Your task to perform on an android device: Show me productivity apps on the Play Store Image 0: 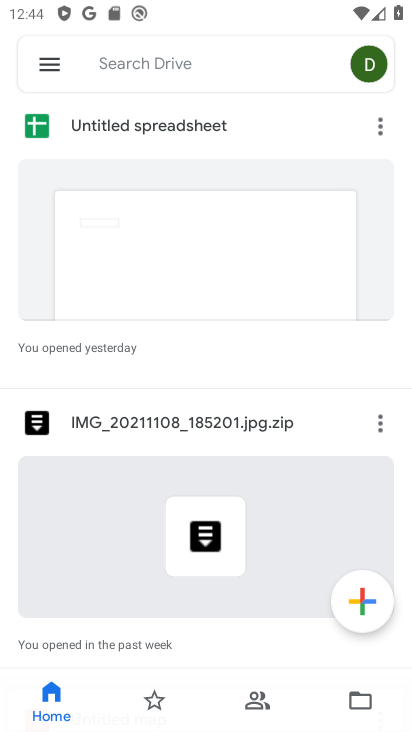
Step 0: press home button
Your task to perform on an android device: Show me productivity apps on the Play Store Image 1: 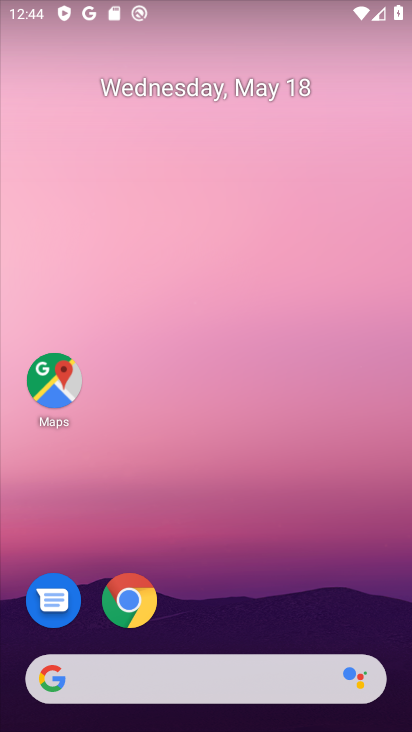
Step 1: drag from (195, 625) to (245, 157)
Your task to perform on an android device: Show me productivity apps on the Play Store Image 2: 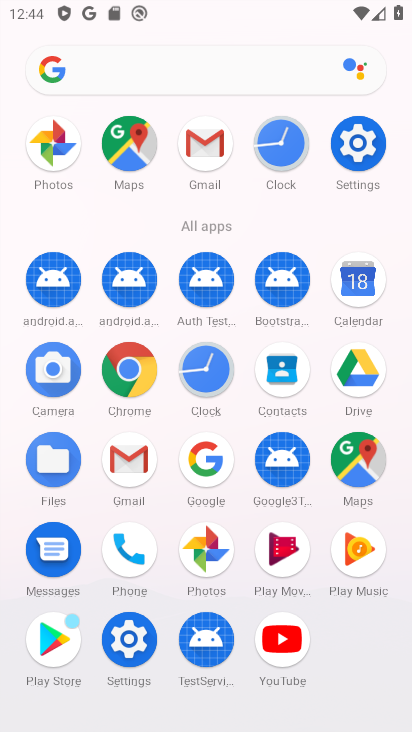
Step 2: click (57, 635)
Your task to perform on an android device: Show me productivity apps on the Play Store Image 3: 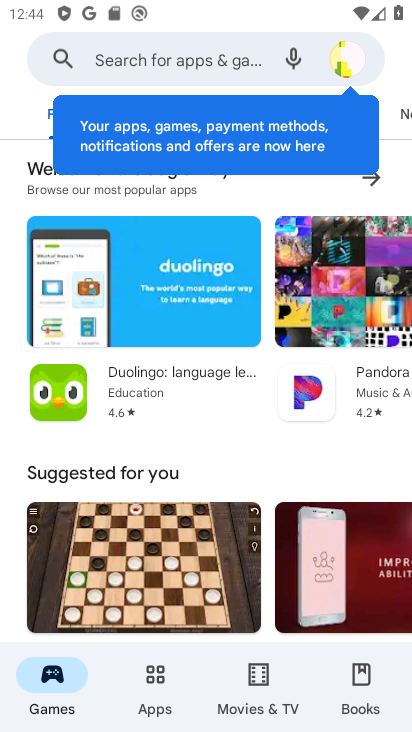
Step 3: click (149, 699)
Your task to perform on an android device: Show me productivity apps on the Play Store Image 4: 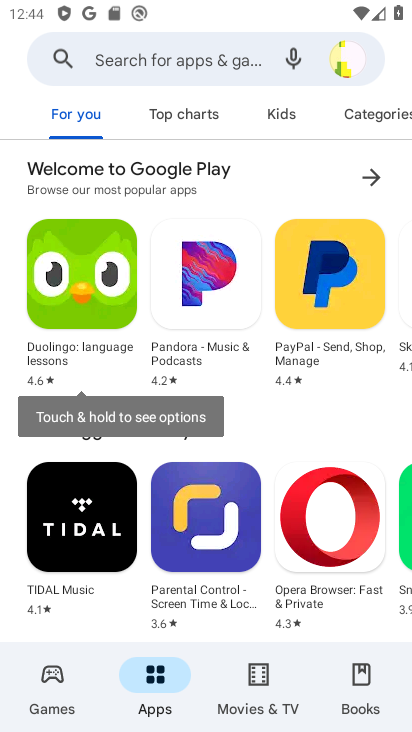
Step 4: drag from (363, 122) to (111, 121)
Your task to perform on an android device: Show me productivity apps on the Play Store Image 5: 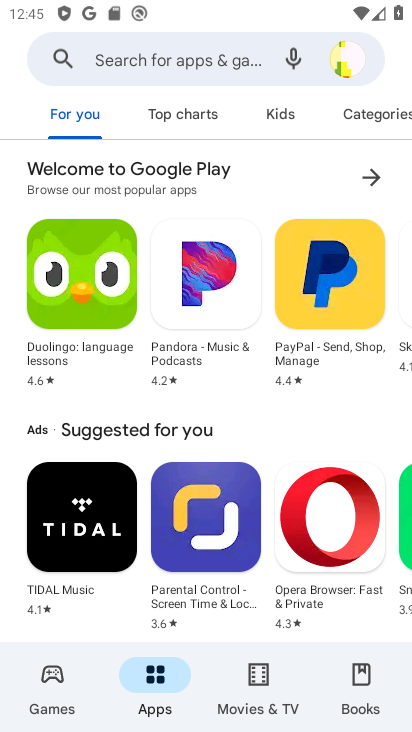
Step 5: click (359, 120)
Your task to perform on an android device: Show me productivity apps on the Play Store Image 6: 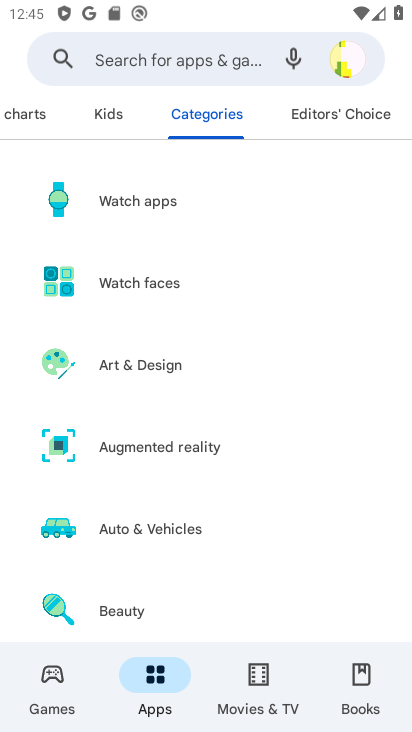
Step 6: drag from (238, 539) to (249, 219)
Your task to perform on an android device: Show me productivity apps on the Play Store Image 7: 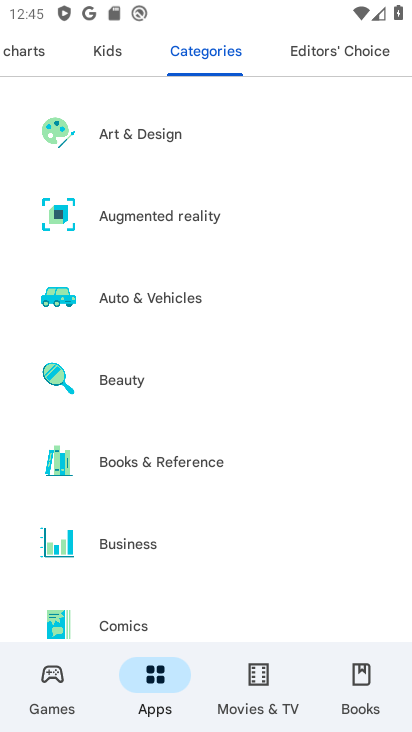
Step 7: drag from (170, 603) to (246, 244)
Your task to perform on an android device: Show me productivity apps on the Play Store Image 8: 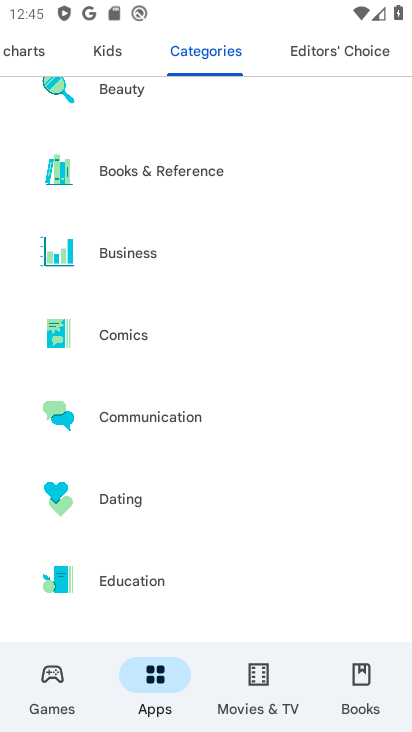
Step 8: drag from (211, 606) to (349, 235)
Your task to perform on an android device: Show me productivity apps on the Play Store Image 9: 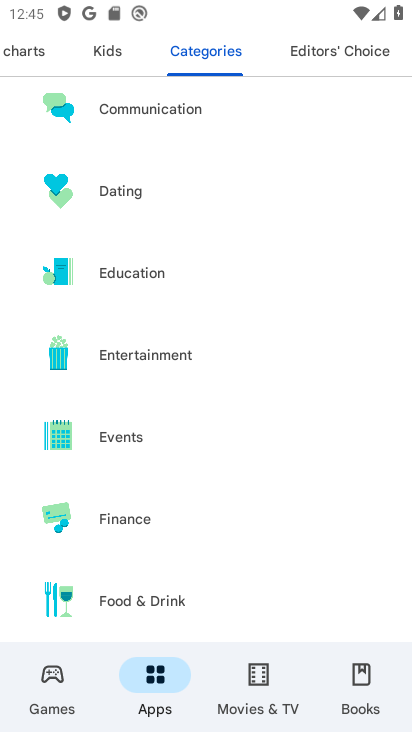
Step 9: drag from (211, 621) to (300, 332)
Your task to perform on an android device: Show me productivity apps on the Play Store Image 10: 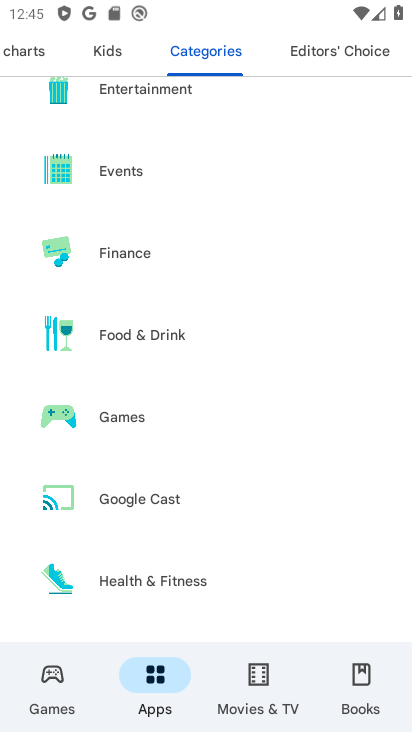
Step 10: drag from (222, 620) to (258, 286)
Your task to perform on an android device: Show me productivity apps on the Play Store Image 11: 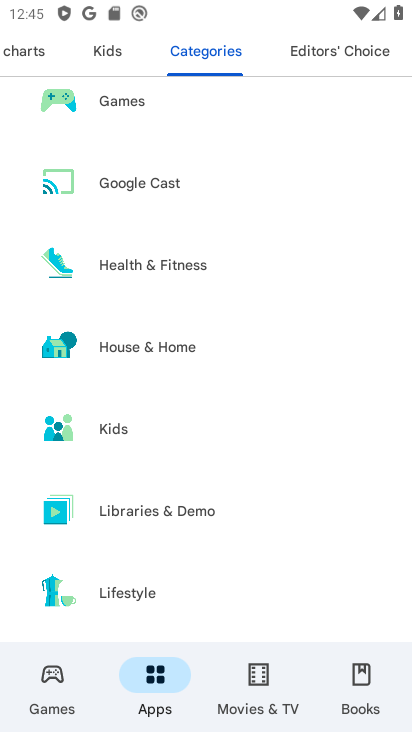
Step 11: drag from (160, 549) to (271, 178)
Your task to perform on an android device: Show me productivity apps on the Play Store Image 12: 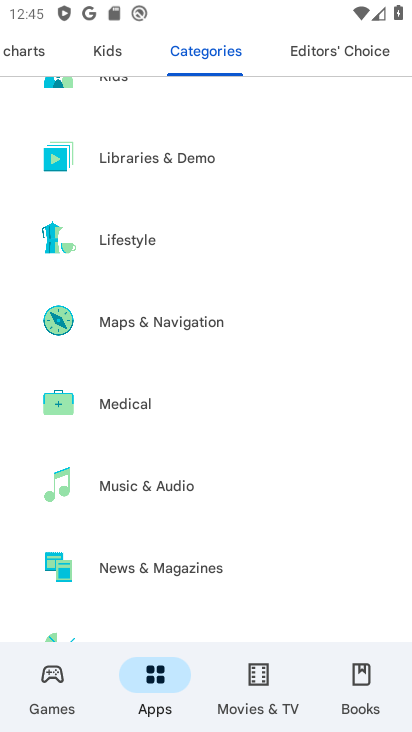
Step 12: drag from (152, 589) to (272, 175)
Your task to perform on an android device: Show me productivity apps on the Play Store Image 13: 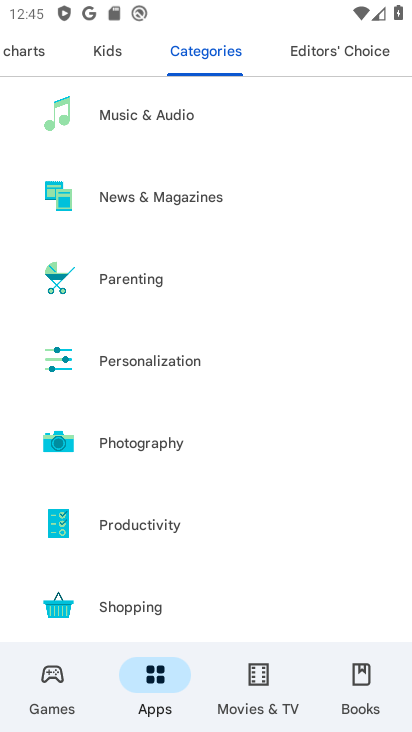
Step 13: click (143, 522)
Your task to perform on an android device: Show me productivity apps on the Play Store Image 14: 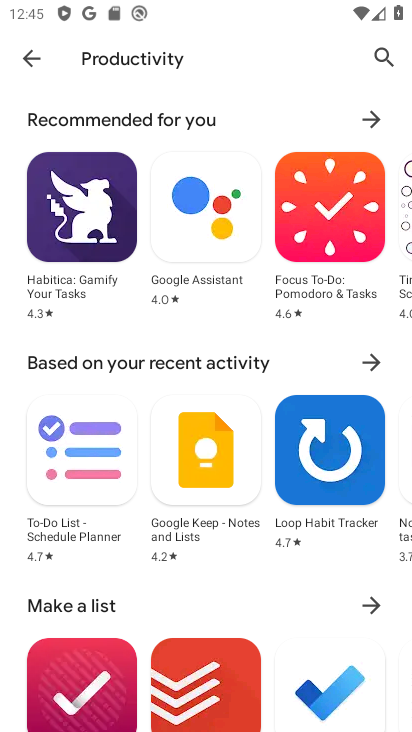
Step 14: task complete